Your task to perform on an android device: manage bookmarks in the chrome app Image 0: 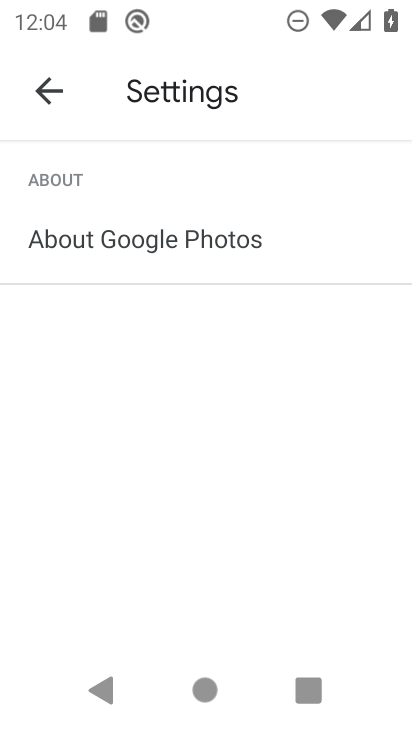
Step 0: click (45, 92)
Your task to perform on an android device: manage bookmarks in the chrome app Image 1: 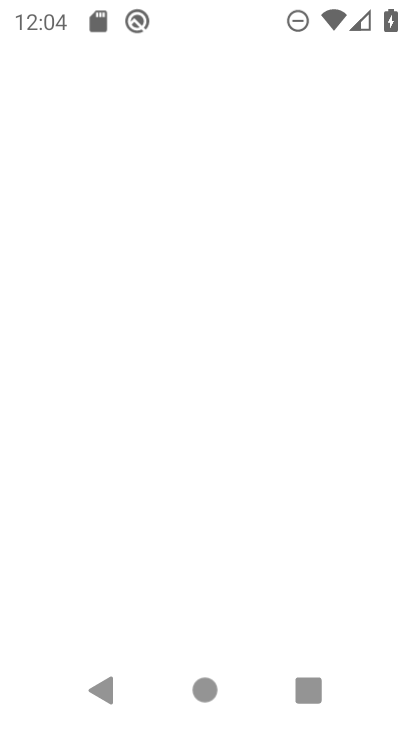
Step 1: click (42, 77)
Your task to perform on an android device: manage bookmarks in the chrome app Image 2: 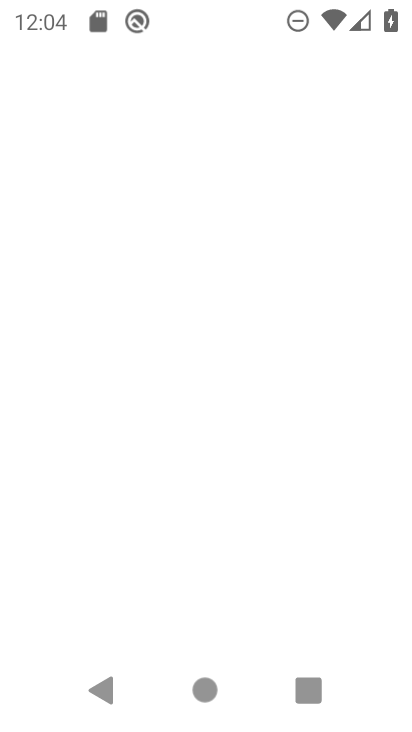
Step 2: press back button
Your task to perform on an android device: manage bookmarks in the chrome app Image 3: 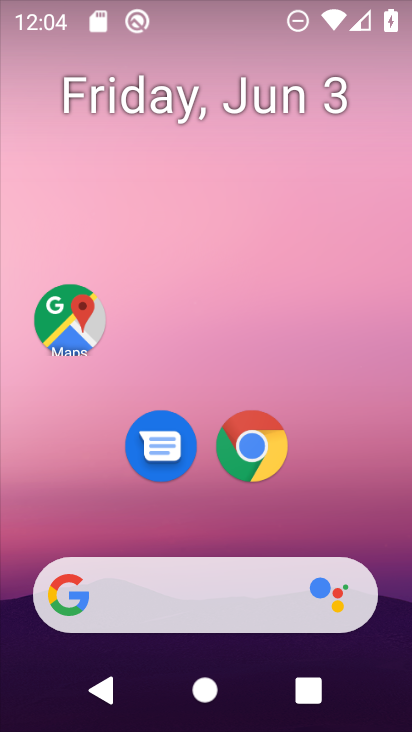
Step 3: click (40, 98)
Your task to perform on an android device: manage bookmarks in the chrome app Image 4: 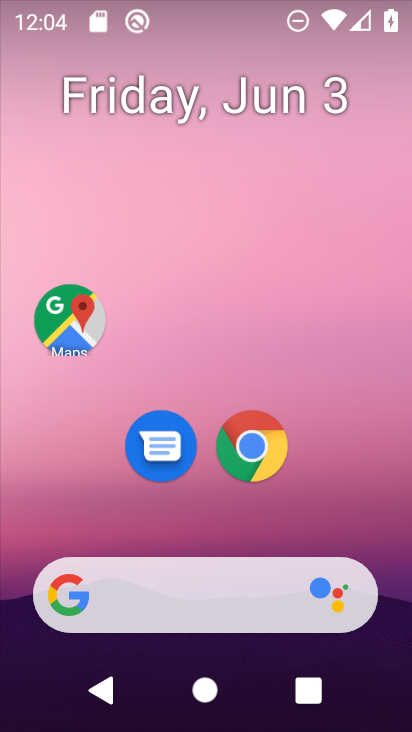
Step 4: drag from (233, 672) to (167, 62)
Your task to perform on an android device: manage bookmarks in the chrome app Image 5: 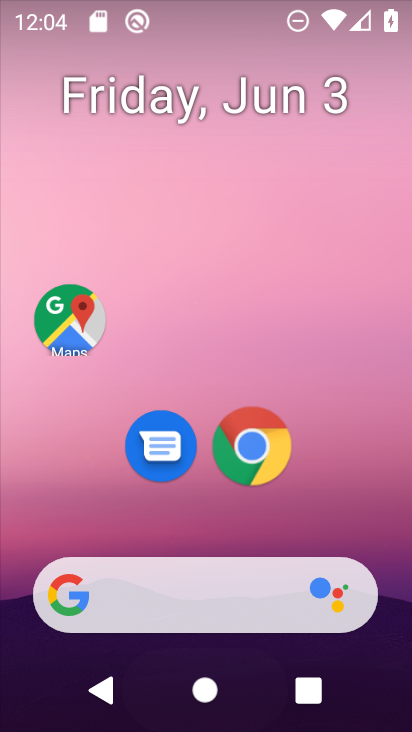
Step 5: drag from (207, 226) to (190, 109)
Your task to perform on an android device: manage bookmarks in the chrome app Image 6: 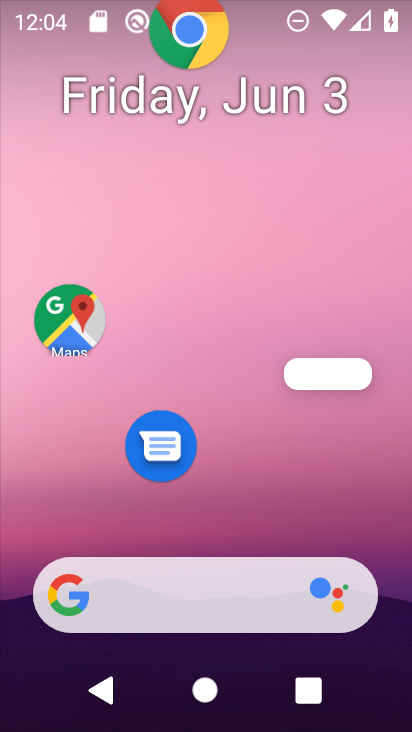
Step 6: drag from (223, 683) to (123, 198)
Your task to perform on an android device: manage bookmarks in the chrome app Image 7: 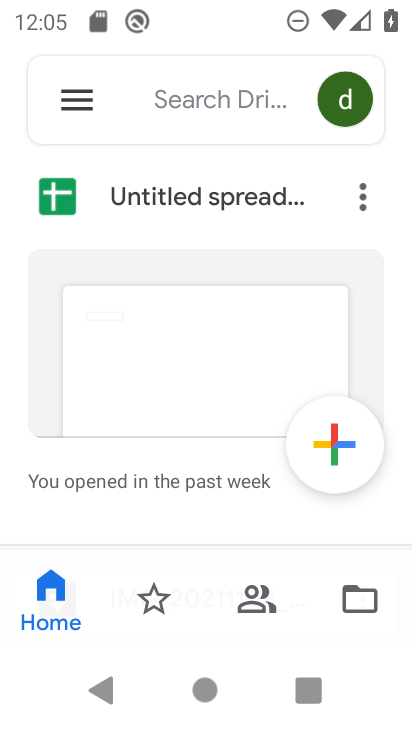
Step 7: press home button
Your task to perform on an android device: manage bookmarks in the chrome app Image 8: 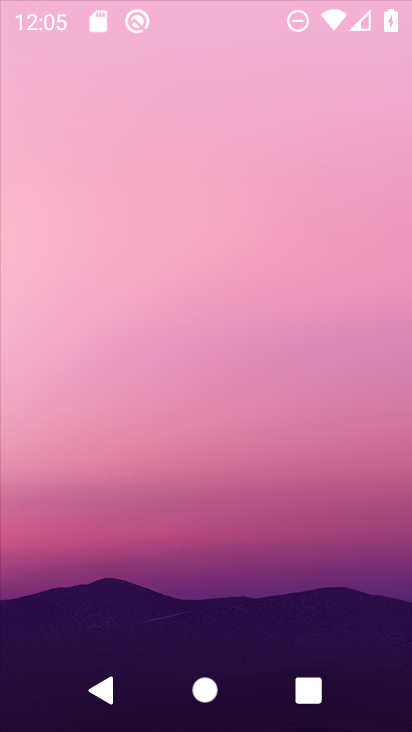
Step 8: drag from (254, 683) to (219, 331)
Your task to perform on an android device: manage bookmarks in the chrome app Image 9: 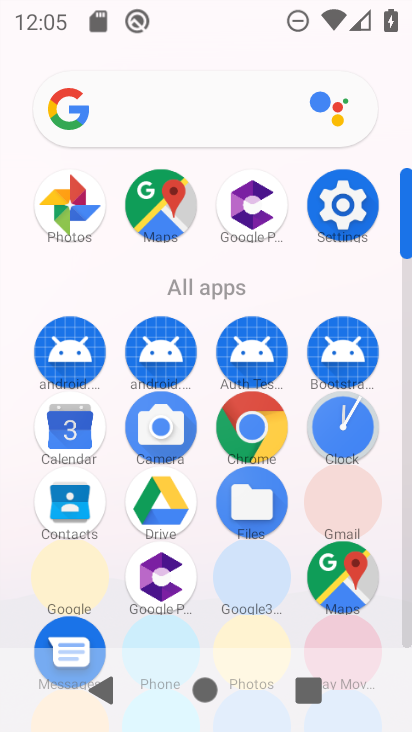
Step 9: drag from (253, 611) to (259, 165)
Your task to perform on an android device: manage bookmarks in the chrome app Image 10: 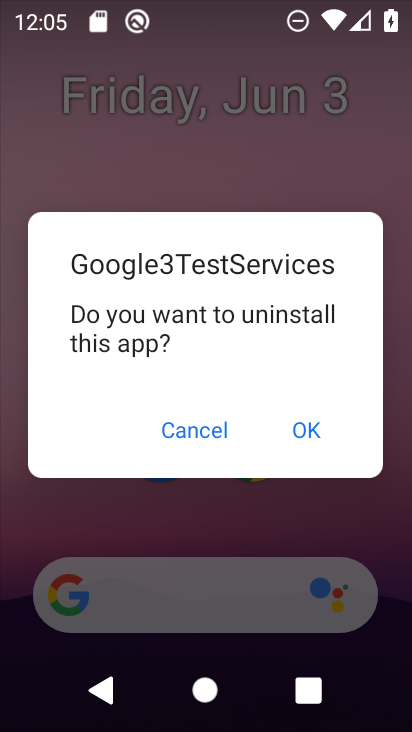
Step 10: drag from (263, 365) to (226, 77)
Your task to perform on an android device: manage bookmarks in the chrome app Image 11: 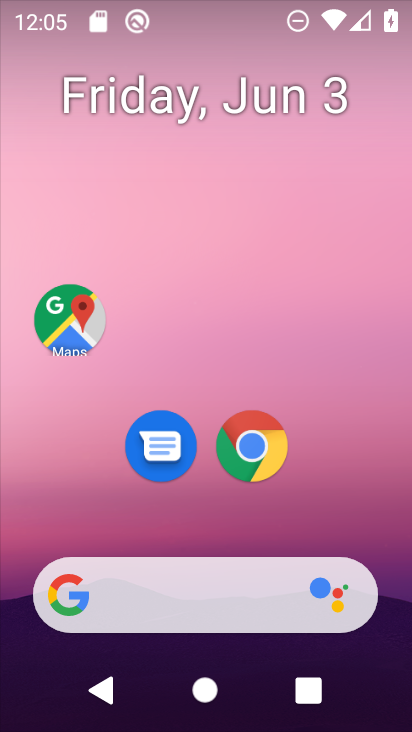
Step 11: click (312, 430)
Your task to perform on an android device: manage bookmarks in the chrome app Image 12: 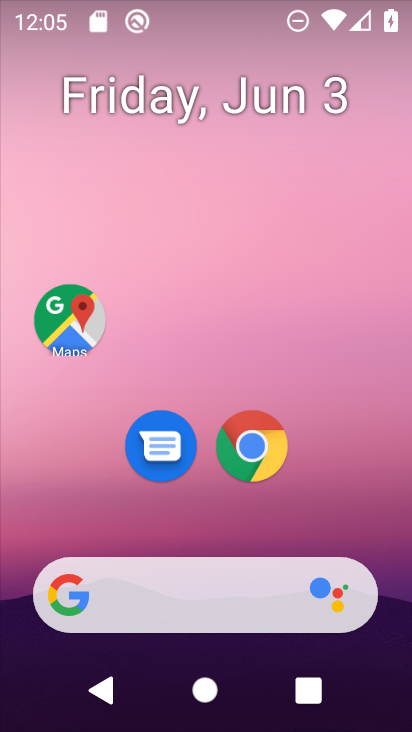
Step 12: drag from (257, 658) to (208, 114)
Your task to perform on an android device: manage bookmarks in the chrome app Image 13: 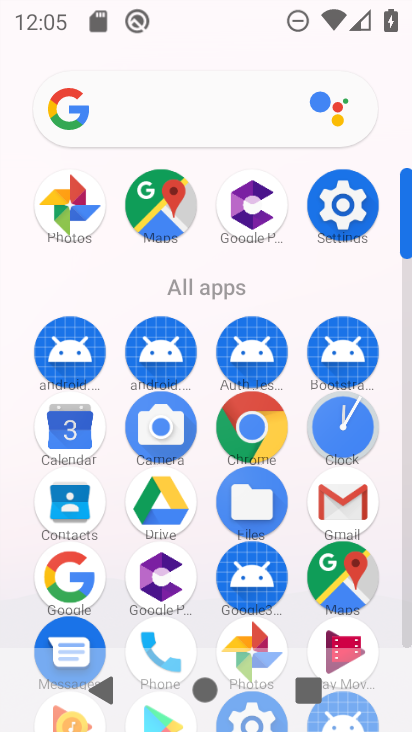
Step 13: click (242, 423)
Your task to perform on an android device: manage bookmarks in the chrome app Image 14: 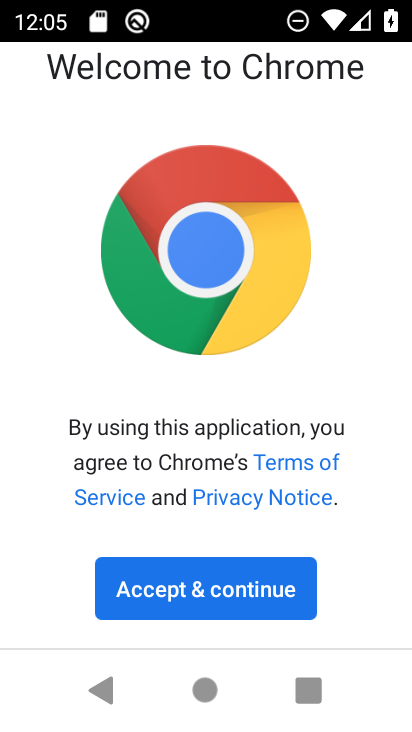
Step 14: click (192, 586)
Your task to perform on an android device: manage bookmarks in the chrome app Image 15: 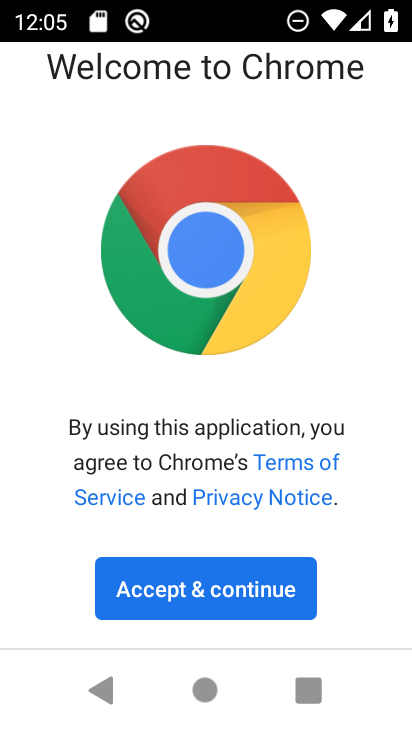
Step 15: click (191, 587)
Your task to perform on an android device: manage bookmarks in the chrome app Image 16: 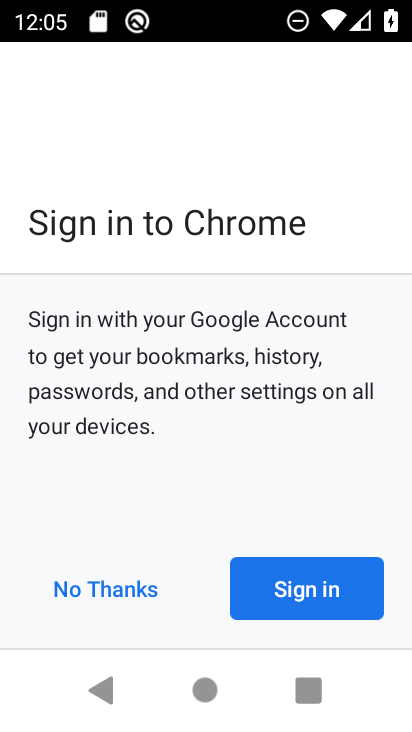
Step 16: click (191, 587)
Your task to perform on an android device: manage bookmarks in the chrome app Image 17: 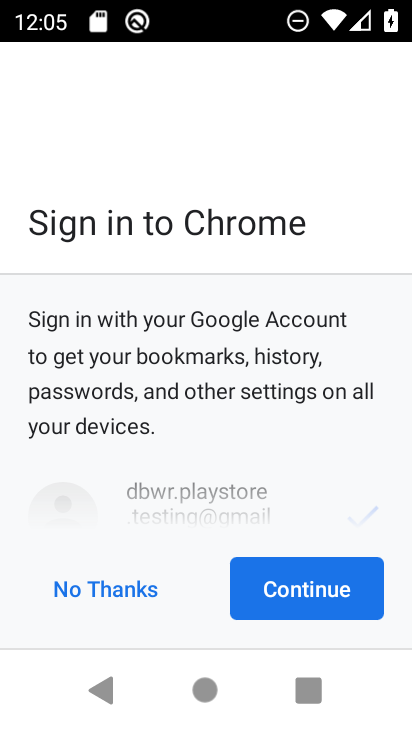
Step 17: click (291, 591)
Your task to perform on an android device: manage bookmarks in the chrome app Image 18: 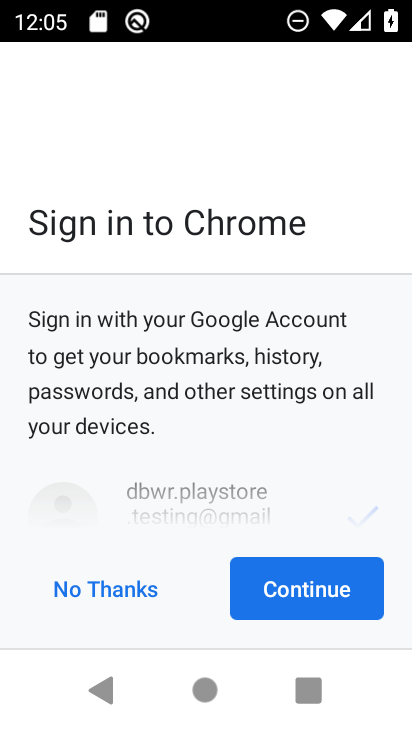
Step 18: click (291, 591)
Your task to perform on an android device: manage bookmarks in the chrome app Image 19: 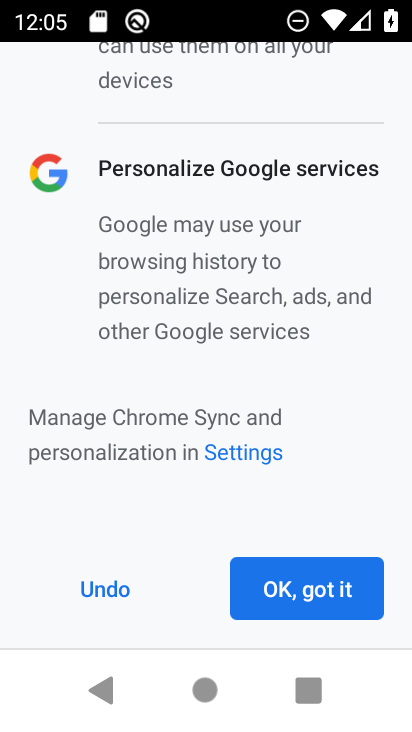
Step 19: click (308, 582)
Your task to perform on an android device: manage bookmarks in the chrome app Image 20: 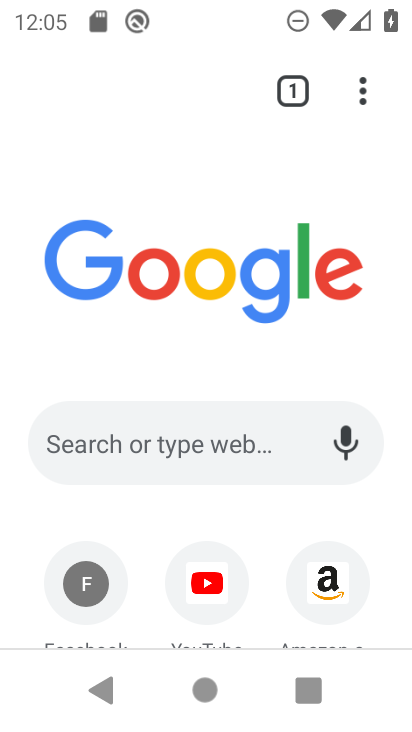
Step 20: drag from (226, 337) to (207, 247)
Your task to perform on an android device: manage bookmarks in the chrome app Image 21: 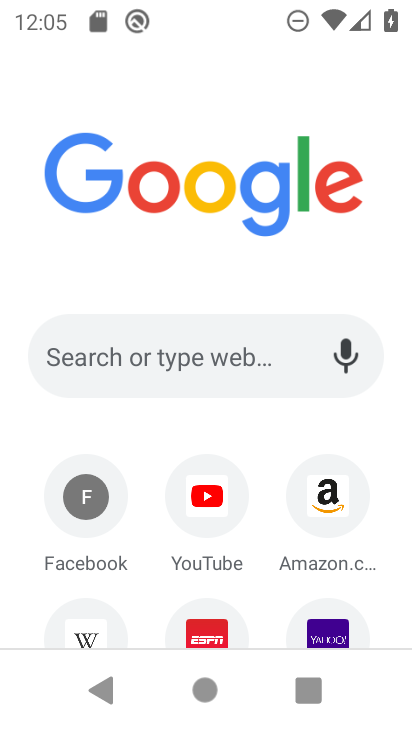
Step 21: drag from (224, 411) to (201, 223)
Your task to perform on an android device: manage bookmarks in the chrome app Image 22: 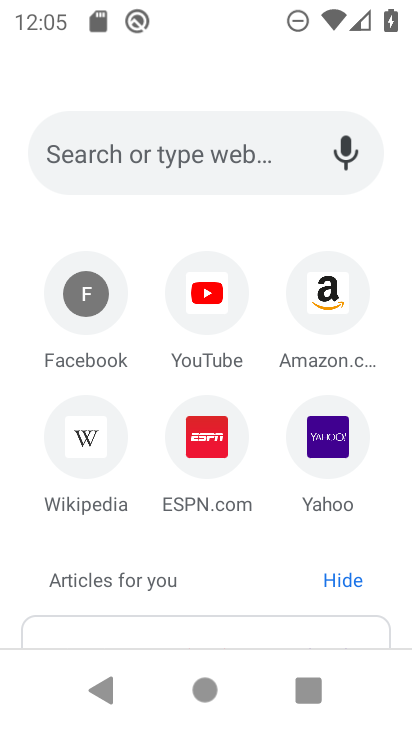
Step 22: drag from (277, 408) to (229, 193)
Your task to perform on an android device: manage bookmarks in the chrome app Image 23: 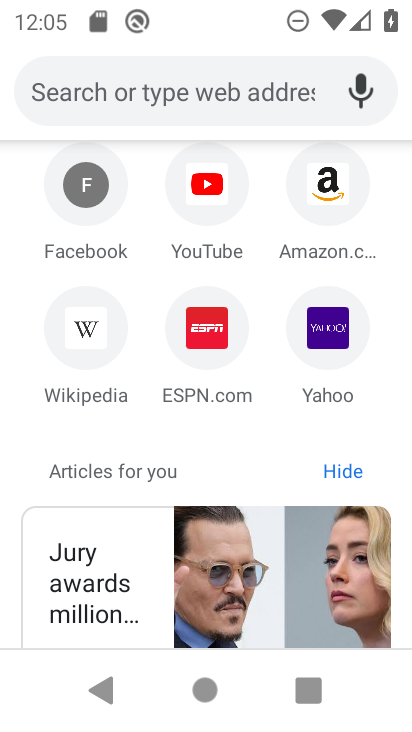
Step 23: drag from (232, 215) to (273, 479)
Your task to perform on an android device: manage bookmarks in the chrome app Image 24: 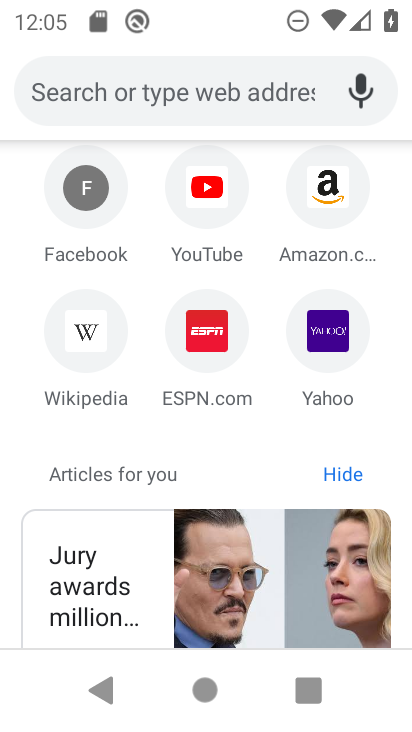
Step 24: drag from (181, 272) to (228, 602)
Your task to perform on an android device: manage bookmarks in the chrome app Image 25: 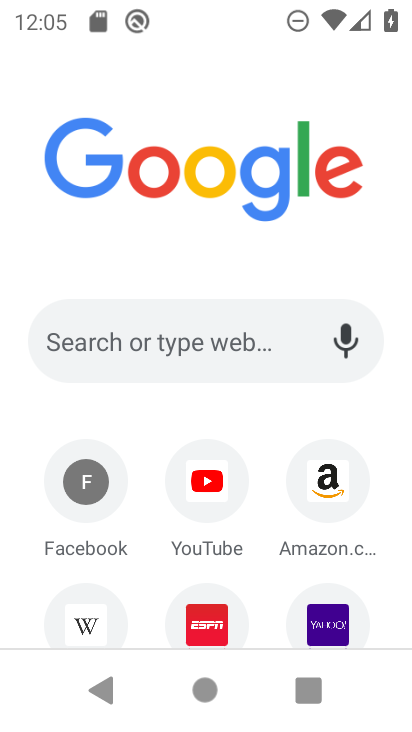
Step 25: drag from (241, 315) to (314, 578)
Your task to perform on an android device: manage bookmarks in the chrome app Image 26: 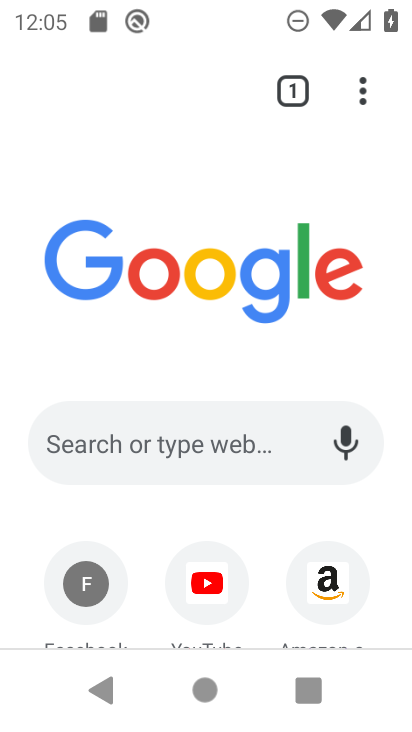
Step 26: click (362, 93)
Your task to perform on an android device: manage bookmarks in the chrome app Image 27: 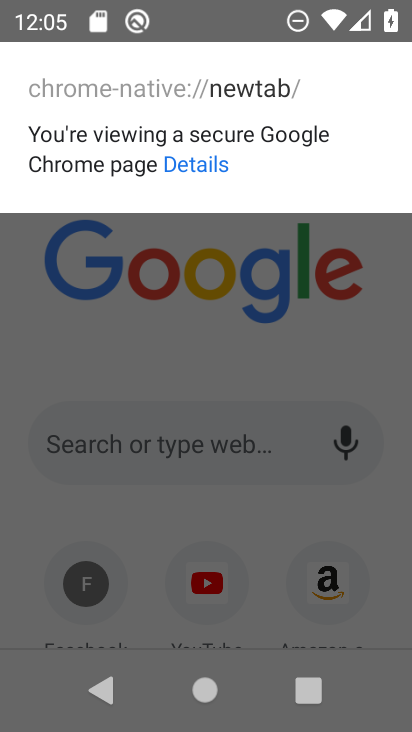
Step 27: click (147, 329)
Your task to perform on an android device: manage bookmarks in the chrome app Image 28: 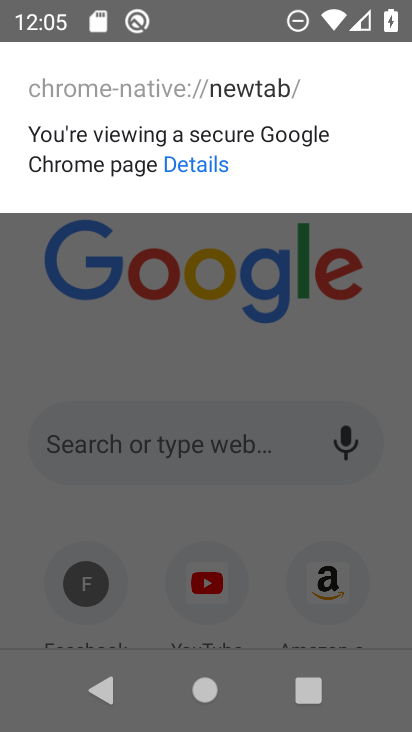
Step 28: click (148, 329)
Your task to perform on an android device: manage bookmarks in the chrome app Image 29: 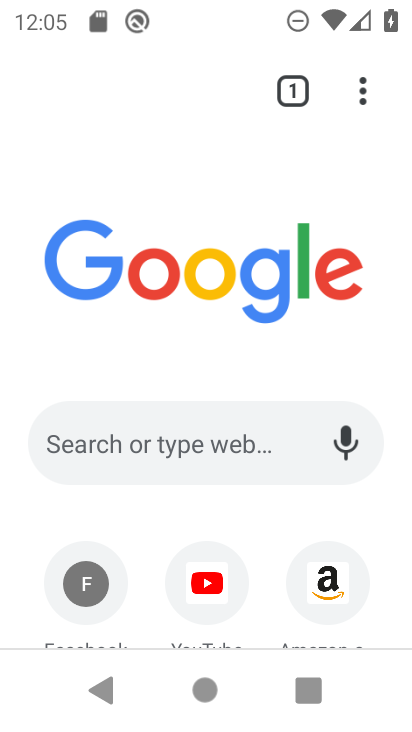
Step 29: drag from (361, 90) to (84, 347)
Your task to perform on an android device: manage bookmarks in the chrome app Image 30: 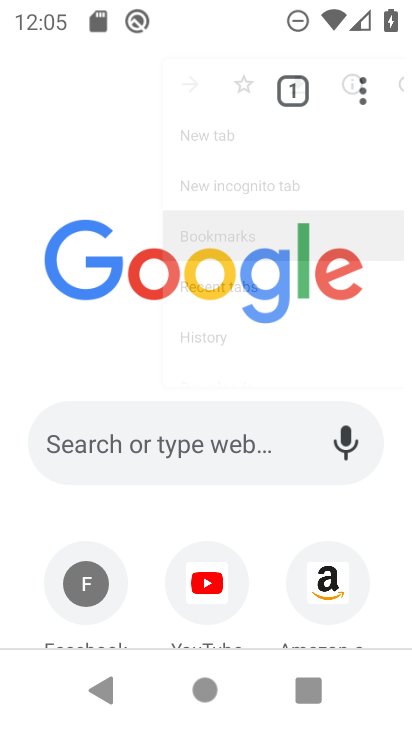
Step 30: click (84, 347)
Your task to perform on an android device: manage bookmarks in the chrome app Image 31: 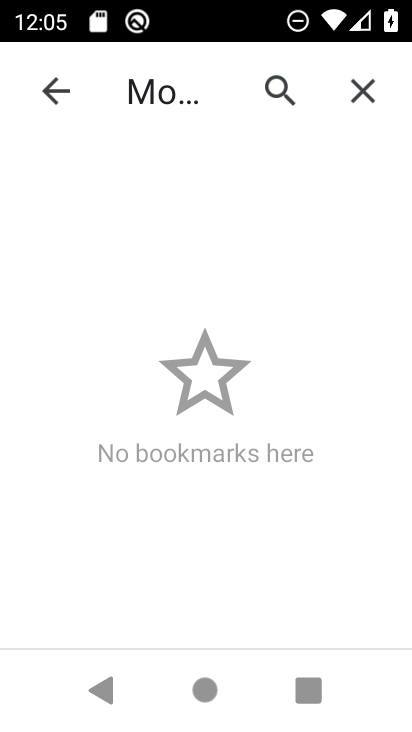
Step 31: task complete